Your task to perform on an android device: Open display settings Image 0: 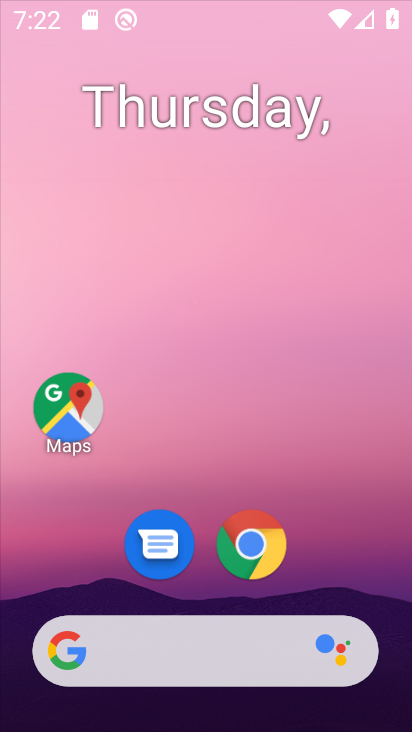
Step 0: click (226, 22)
Your task to perform on an android device: Open display settings Image 1: 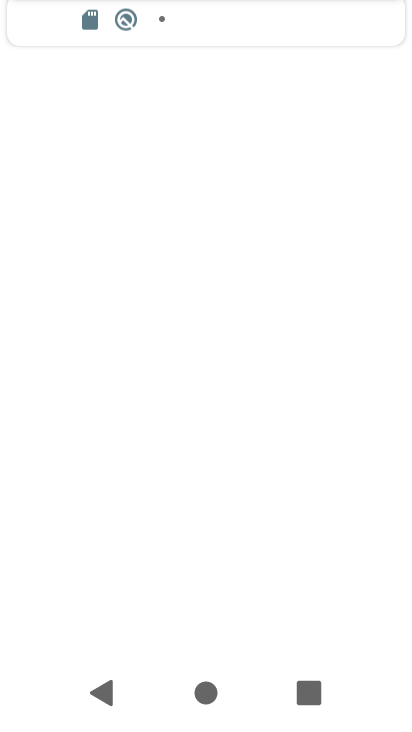
Step 1: press home button
Your task to perform on an android device: Open display settings Image 2: 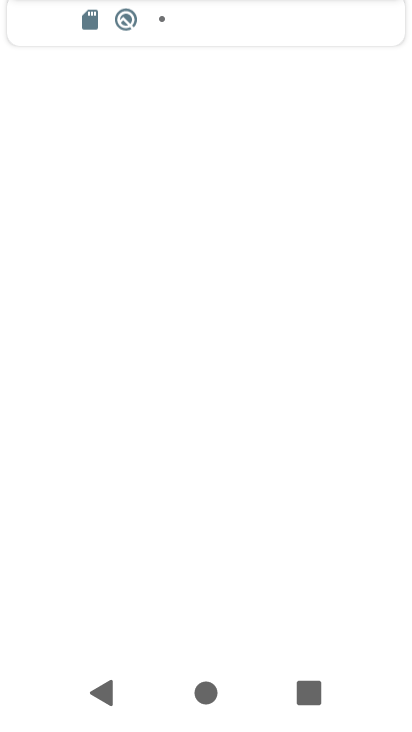
Step 2: click (340, 331)
Your task to perform on an android device: Open display settings Image 3: 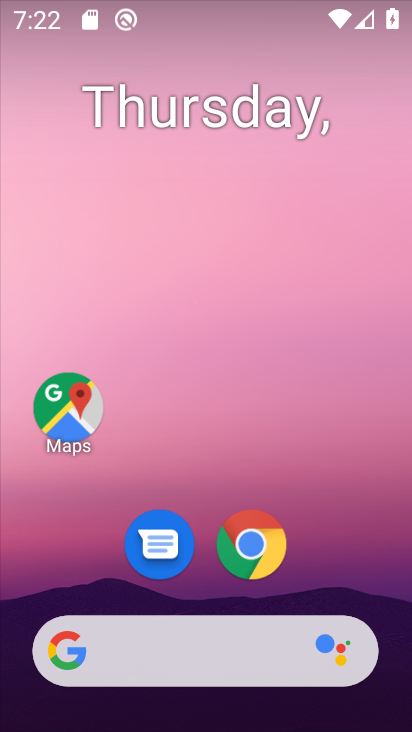
Step 3: drag from (223, 690) to (240, 128)
Your task to perform on an android device: Open display settings Image 4: 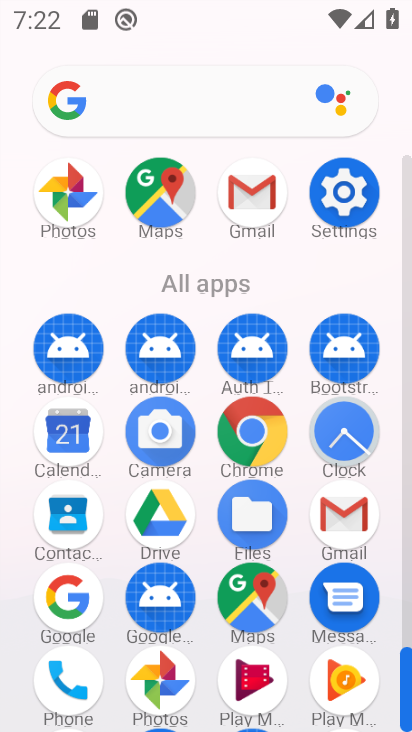
Step 4: click (337, 179)
Your task to perform on an android device: Open display settings Image 5: 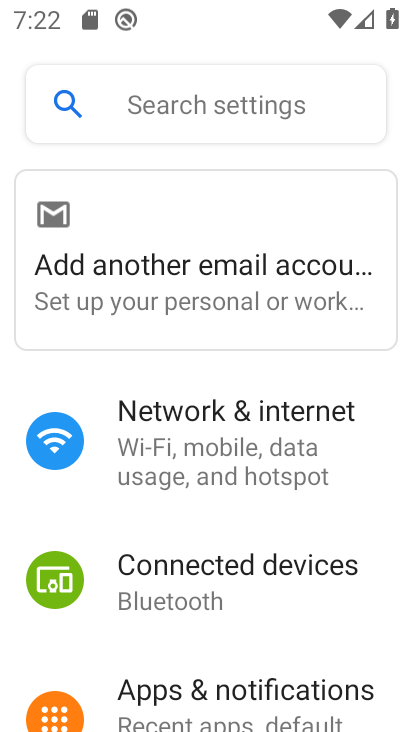
Step 5: drag from (212, 563) to (251, 128)
Your task to perform on an android device: Open display settings Image 6: 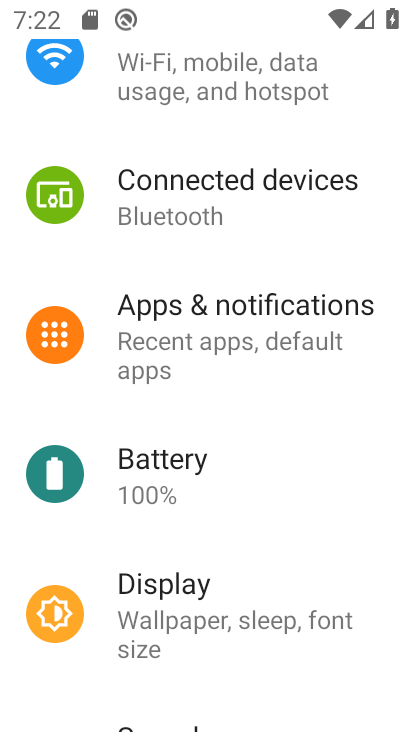
Step 6: click (164, 574)
Your task to perform on an android device: Open display settings Image 7: 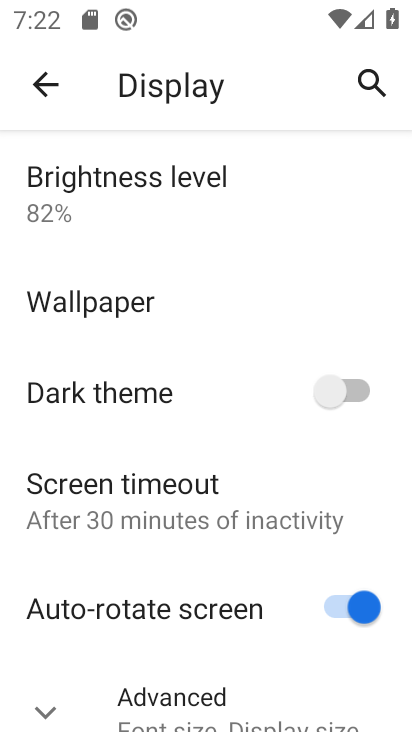
Step 7: task complete